Your task to perform on an android device: Open Google Chrome Image 0: 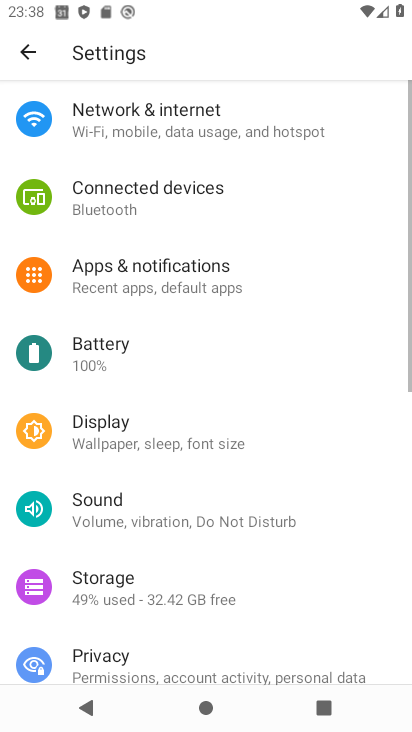
Step 0: press back button
Your task to perform on an android device: Open Google Chrome Image 1: 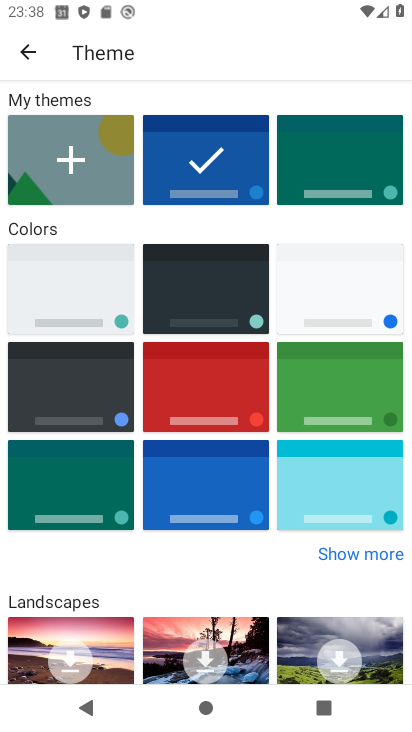
Step 1: press back button
Your task to perform on an android device: Open Google Chrome Image 2: 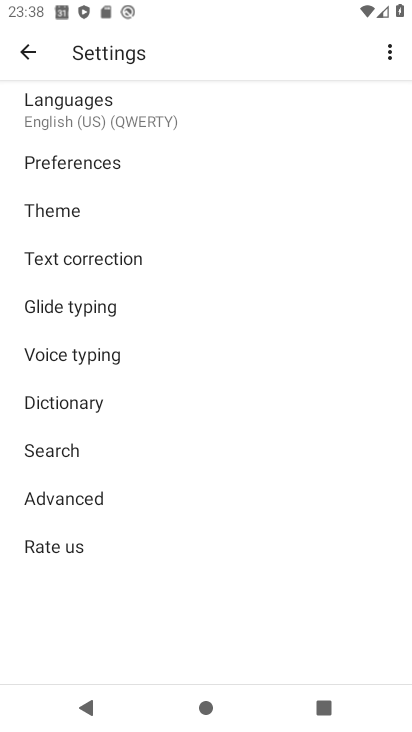
Step 2: press back button
Your task to perform on an android device: Open Google Chrome Image 3: 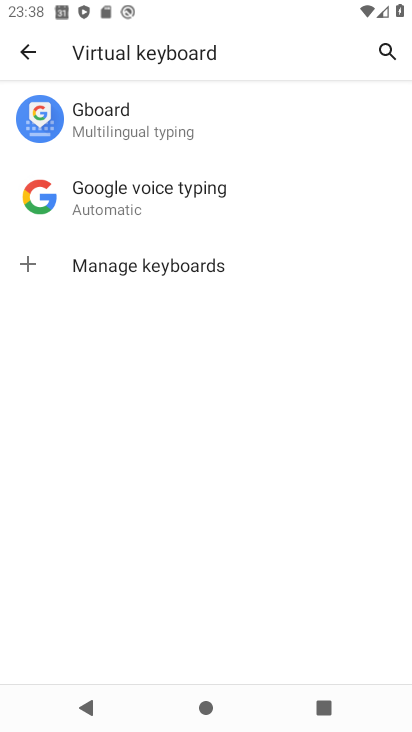
Step 3: press back button
Your task to perform on an android device: Open Google Chrome Image 4: 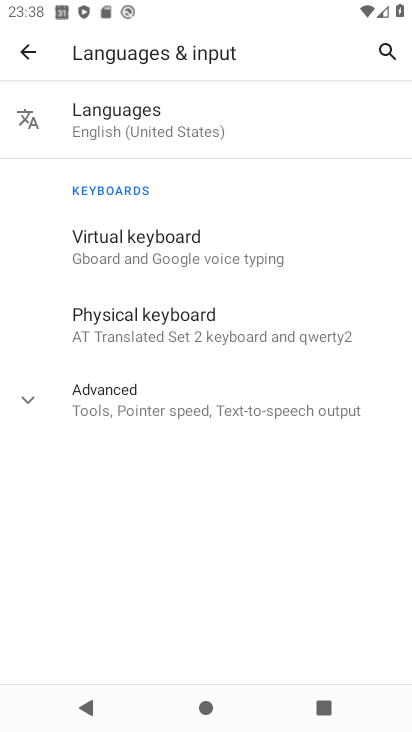
Step 4: press back button
Your task to perform on an android device: Open Google Chrome Image 5: 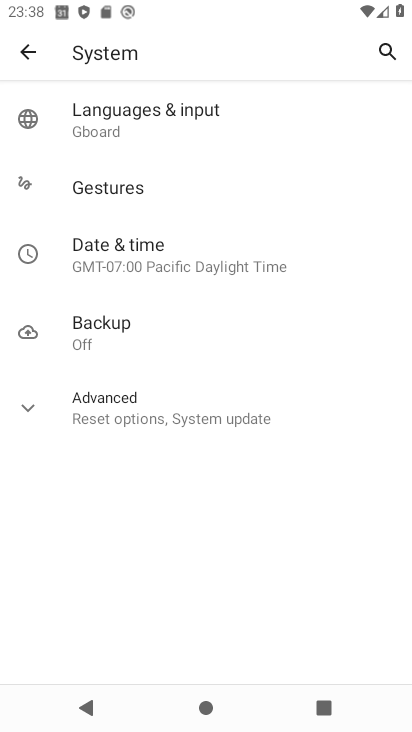
Step 5: press back button
Your task to perform on an android device: Open Google Chrome Image 6: 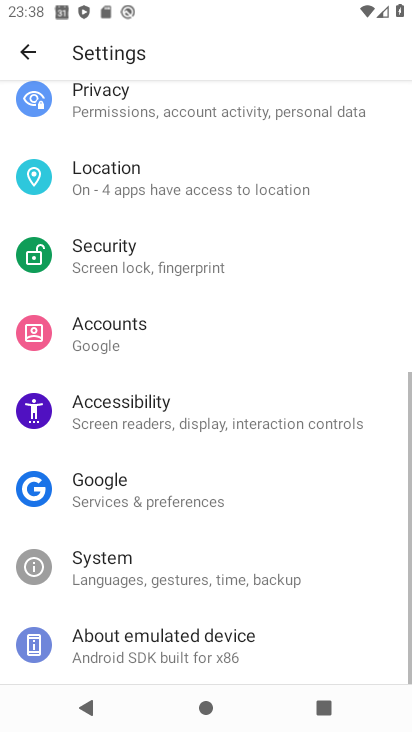
Step 6: press back button
Your task to perform on an android device: Open Google Chrome Image 7: 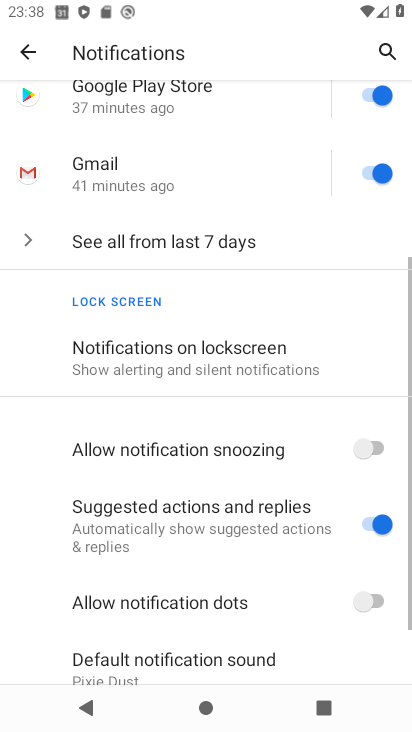
Step 7: press back button
Your task to perform on an android device: Open Google Chrome Image 8: 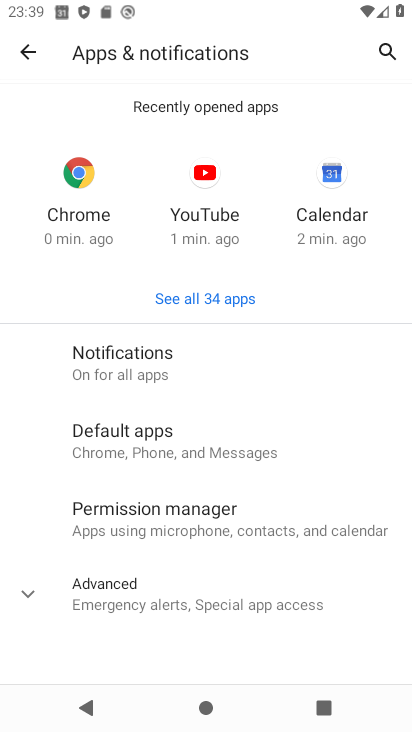
Step 8: press back button
Your task to perform on an android device: Open Google Chrome Image 9: 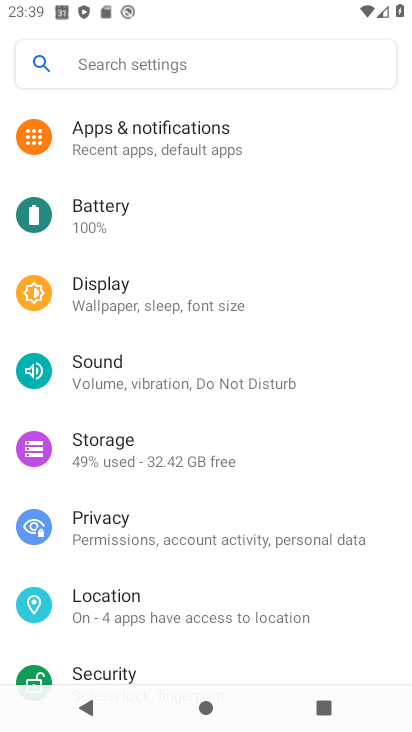
Step 9: press back button
Your task to perform on an android device: Open Google Chrome Image 10: 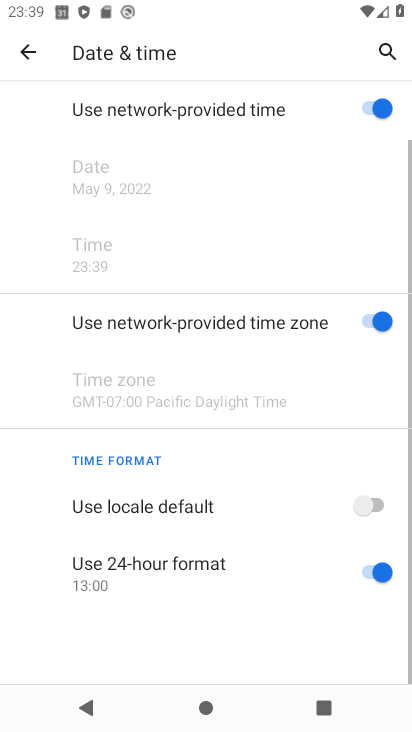
Step 10: press back button
Your task to perform on an android device: Open Google Chrome Image 11: 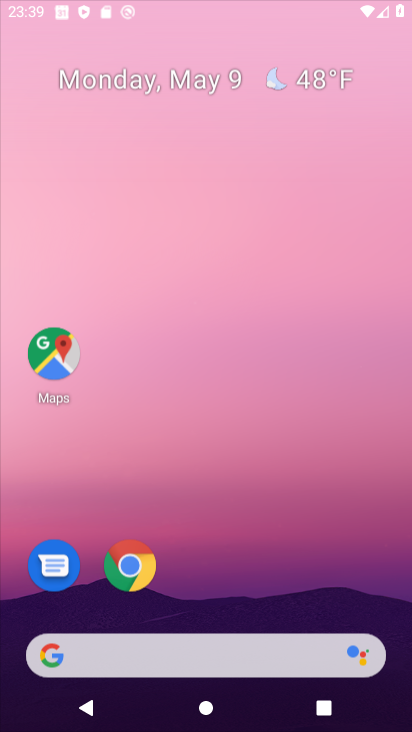
Step 11: press back button
Your task to perform on an android device: Open Google Chrome Image 12: 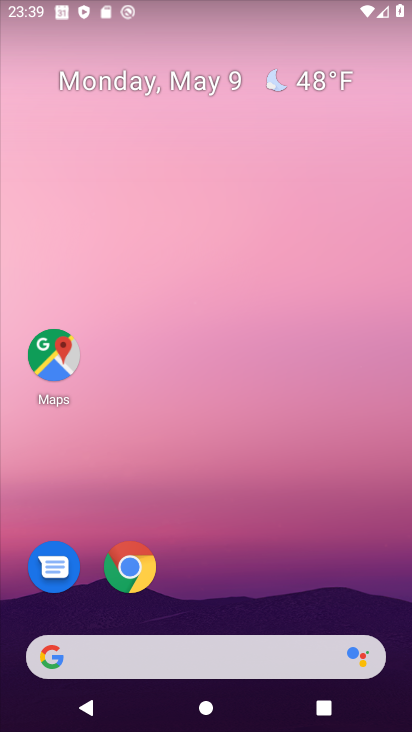
Step 12: click (129, 570)
Your task to perform on an android device: Open Google Chrome Image 13: 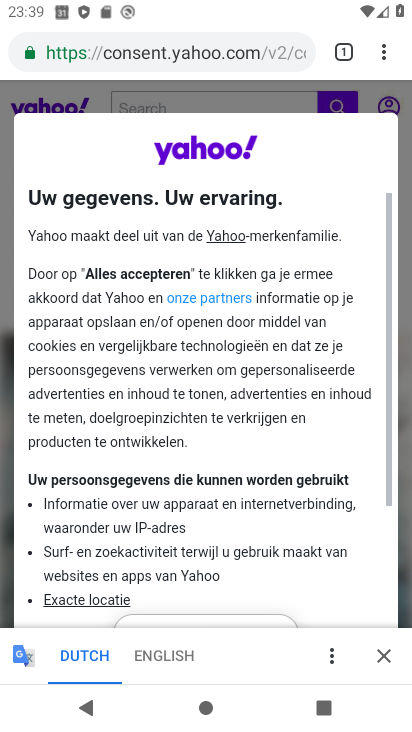
Step 13: task complete